Your task to perform on an android device: Open sound settings Image 0: 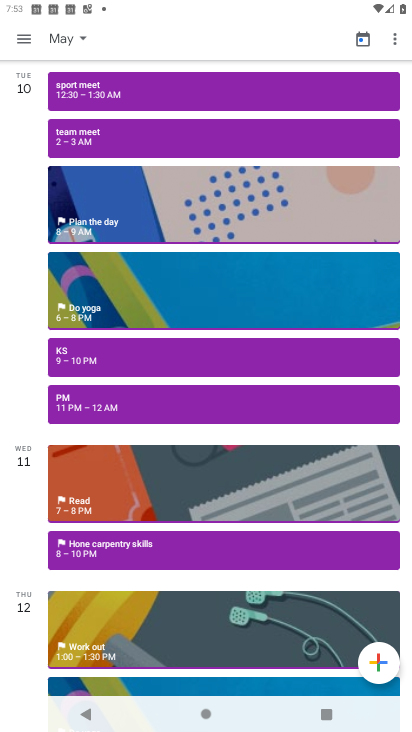
Step 0: press home button
Your task to perform on an android device: Open sound settings Image 1: 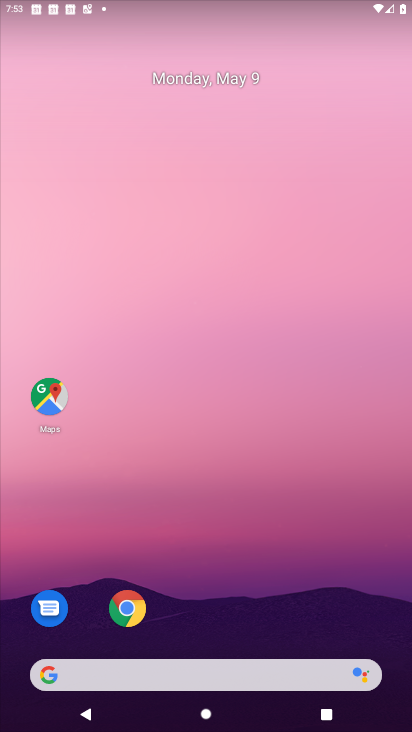
Step 1: drag from (294, 728) to (346, 77)
Your task to perform on an android device: Open sound settings Image 2: 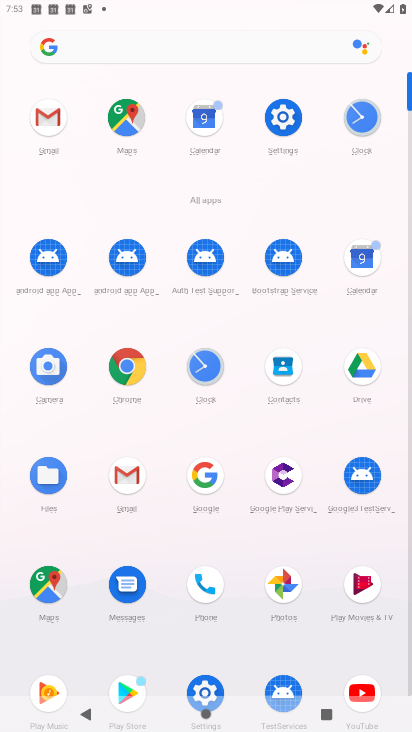
Step 2: click (281, 127)
Your task to perform on an android device: Open sound settings Image 3: 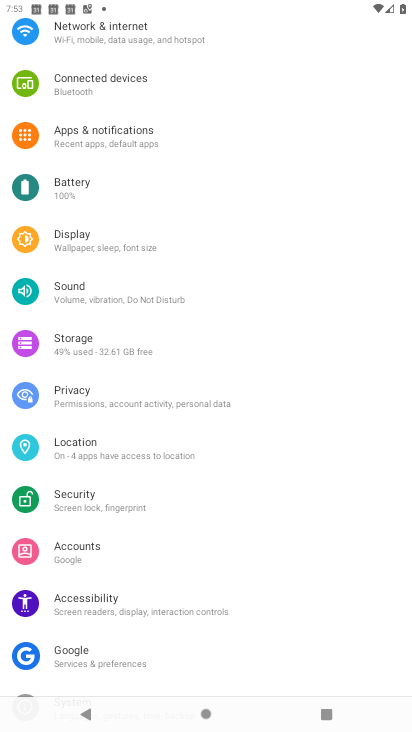
Step 3: click (130, 294)
Your task to perform on an android device: Open sound settings Image 4: 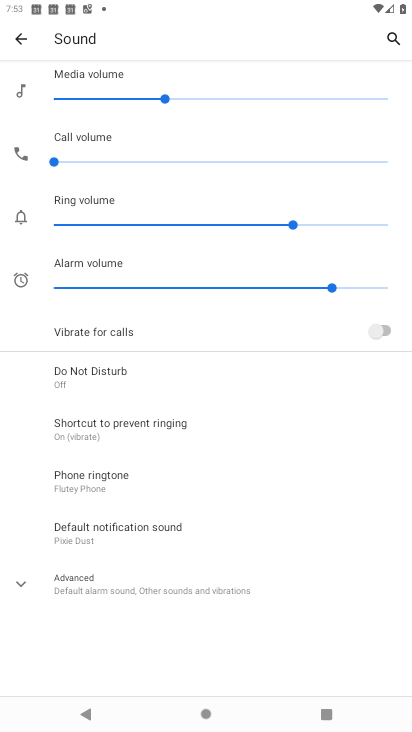
Step 4: task complete